Your task to perform on an android device: see creations saved in the google photos Image 0: 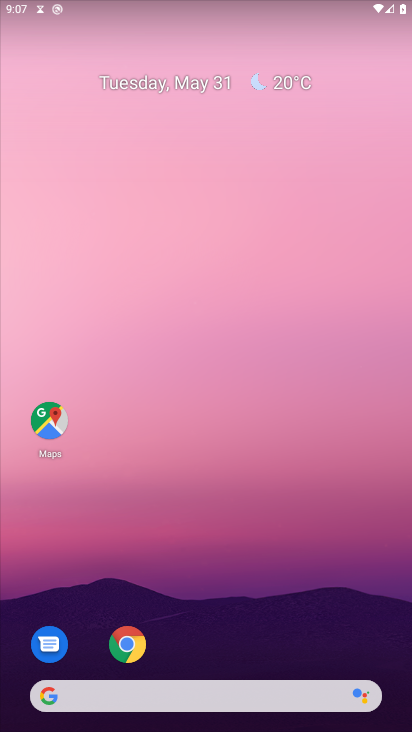
Step 0: drag from (198, 647) to (205, 98)
Your task to perform on an android device: see creations saved in the google photos Image 1: 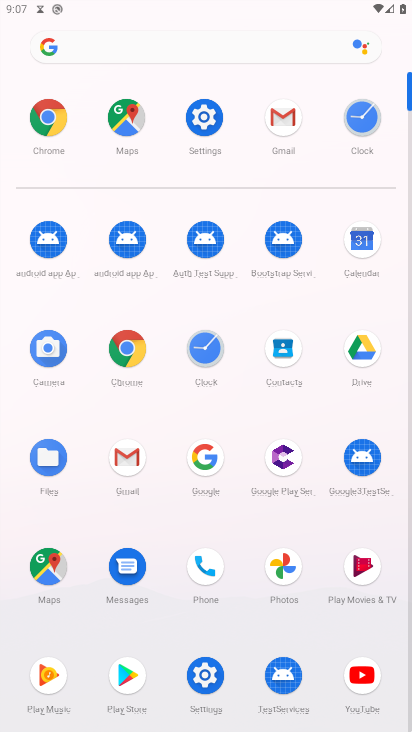
Step 1: click (275, 566)
Your task to perform on an android device: see creations saved in the google photos Image 2: 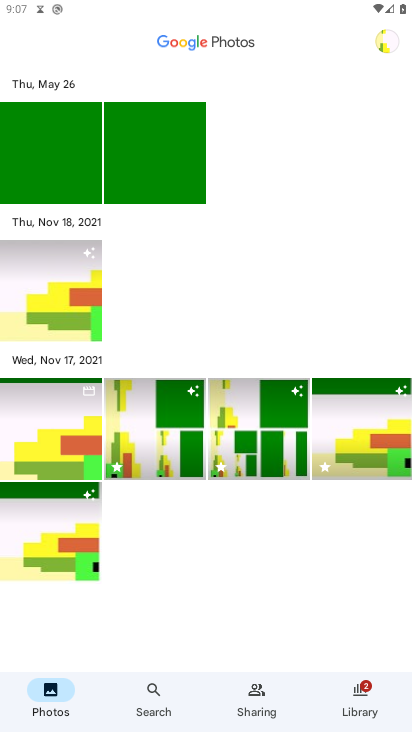
Step 2: click (152, 691)
Your task to perform on an android device: see creations saved in the google photos Image 3: 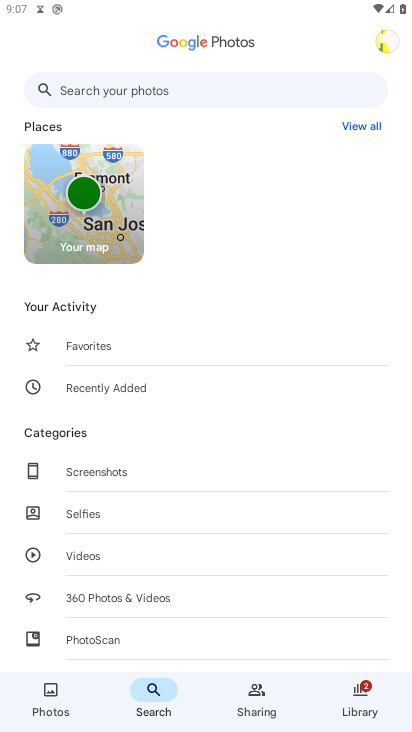
Step 3: drag from (156, 591) to (175, 222)
Your task to perform on an android device: see creations saved in the google photos Image 4: 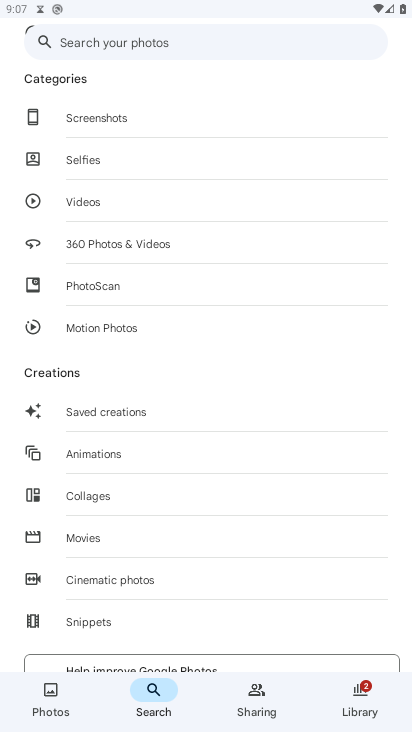
Step 4: click (135, 413)
Your task to perform on an android device: see creations saved in the google photos Image 5: 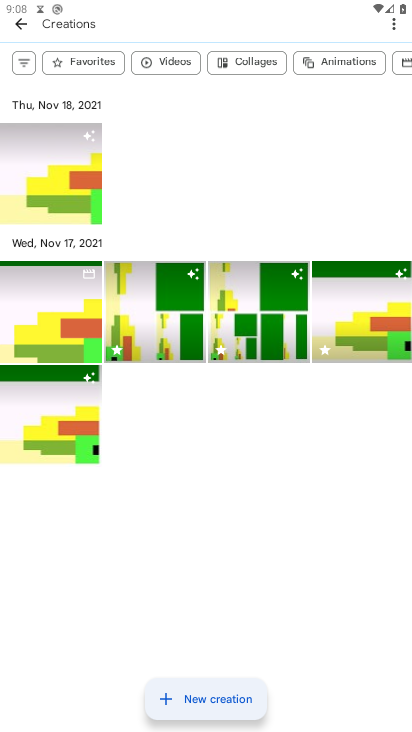
Step 5: task complete